Your task to perform on an android device: change text size in settings app Image 0: 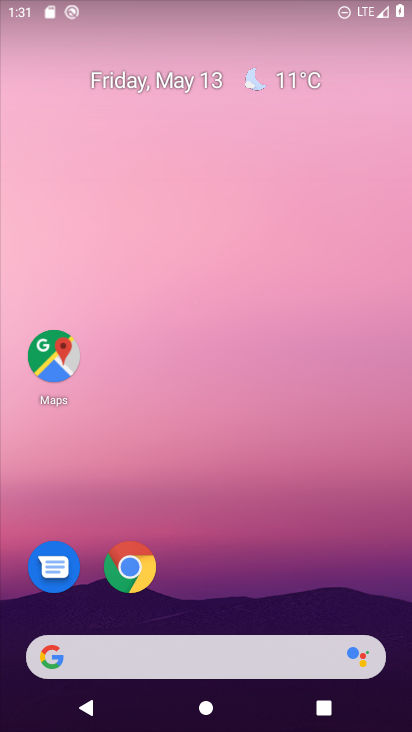
Step 0: press home button
Your task to perform on an android device: change text size in settings app Image 1: 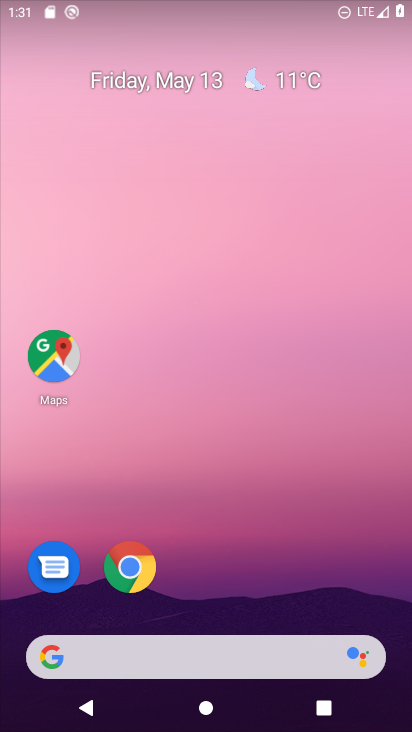
Step 1: drag from (234, 610) to (237, 183)
Your task to perform on an android device: change text size in settings app Image 2: 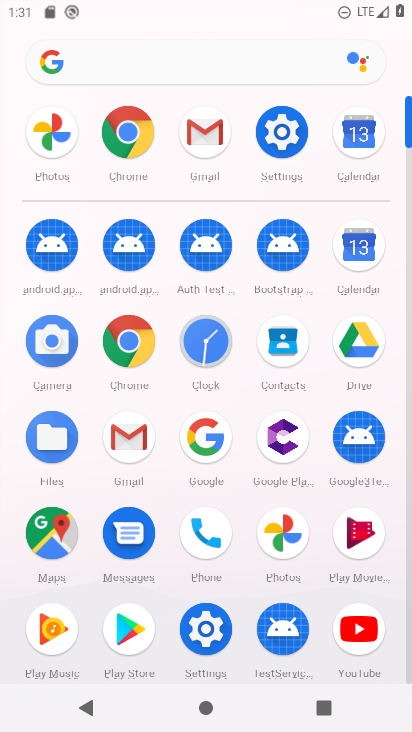
Step 2: click (207, 630)
Your task to perform on an android device: change text size in settings app Image 3: 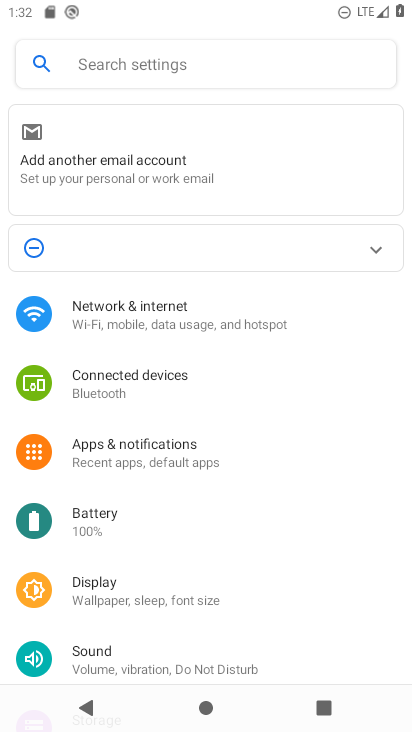
Step 3: drag from (158, 628) to (164, 175)
Your task to perform on an android device: change text size in settings app Image 4: 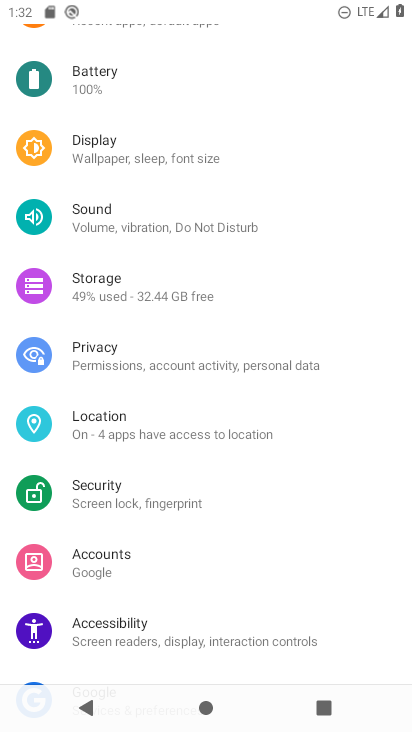
Step 4: click (119, 131)
Your task to perform on an android device: change text size in settings app Image 5: 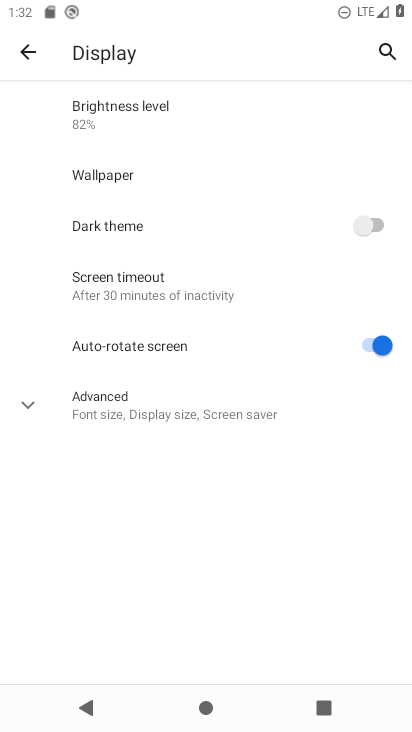
Step 5: click (23, 399)
Your task to perform on an android device: change text size in settings app Image 6: 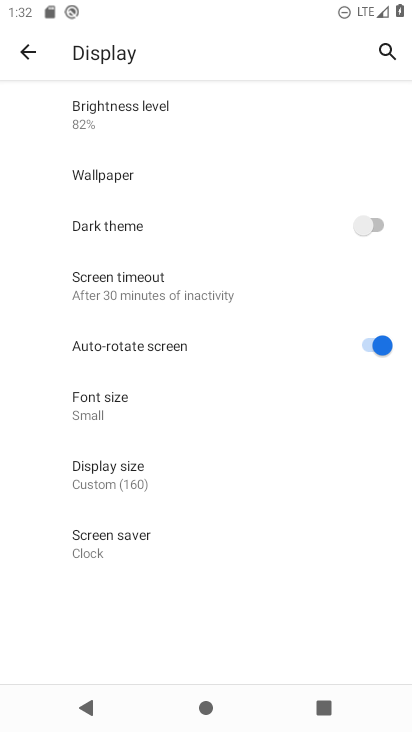
Step 6: click (123, 407)
Your task to perform on an android device: change text size in settings app Image 7: 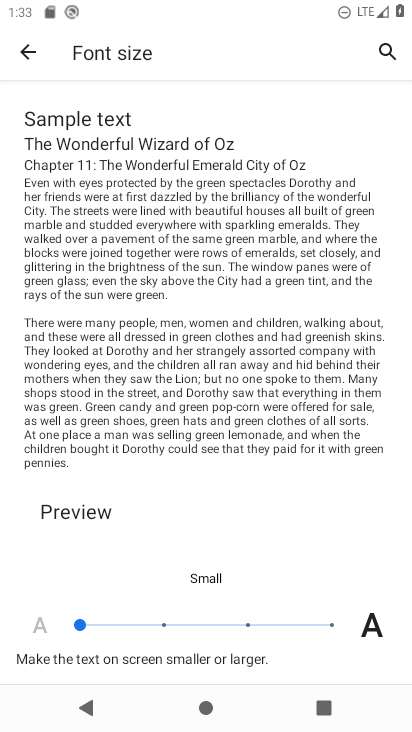
Step 7: task complete